Your task to perform on an android device: delete location history Image 0: 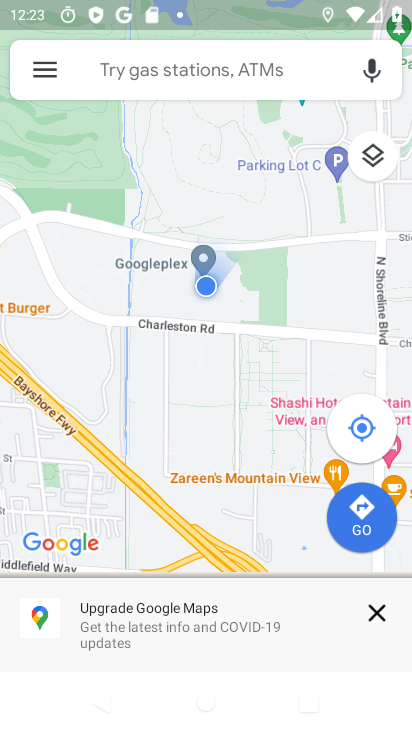
Step 0: click (46, 61)
Your task to perform on an android device: delete location history Image 1: 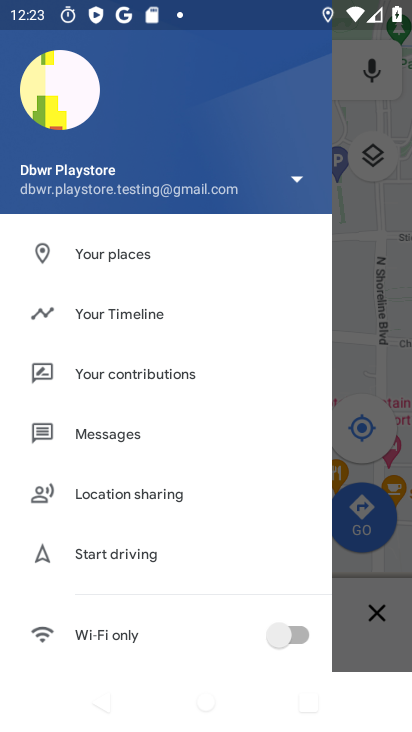
Step 1: click (133, 315)
Your task to perform on an android device: delete location history Image 2: 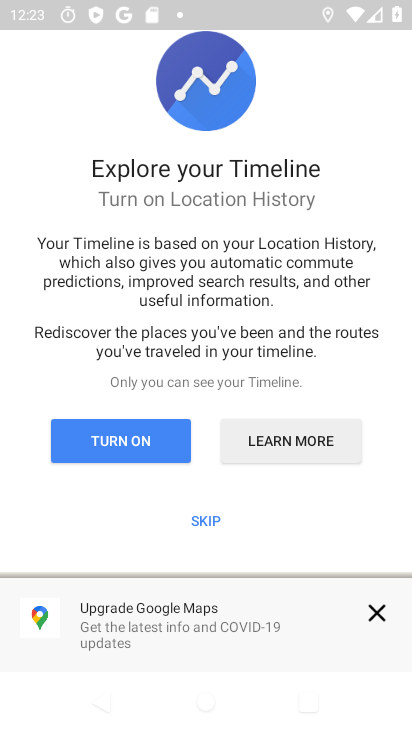
Step 2: click (132, 438)
Your task to perform on an android device: delete location history Image 3: 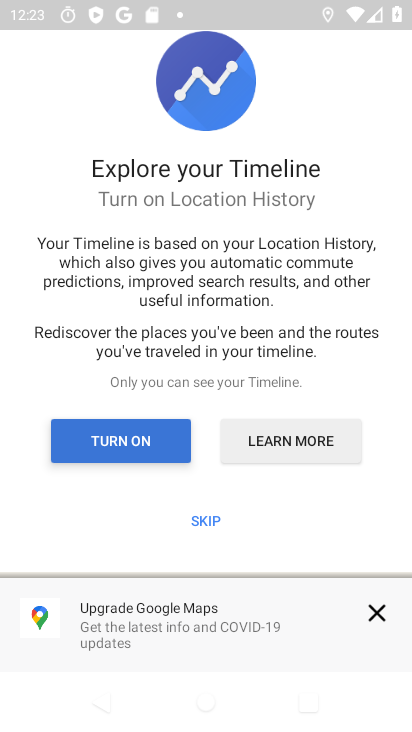
Step 3: click (135, 437)
Your task to perform on an android device: delete location history Image 4: 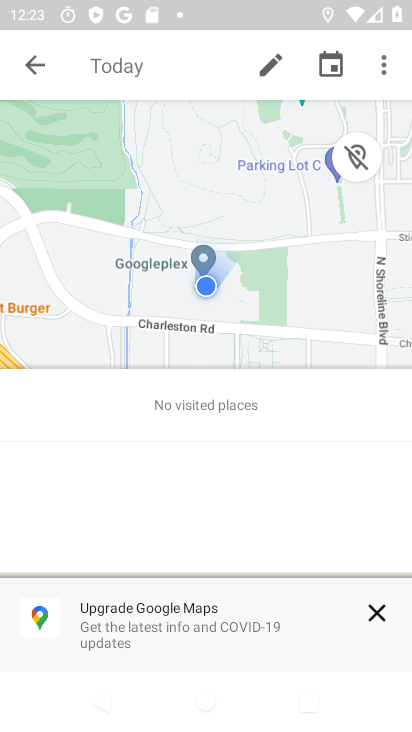
Step 4: click (141, 437)
Your task to perform on an android device: delete location history Image 5: 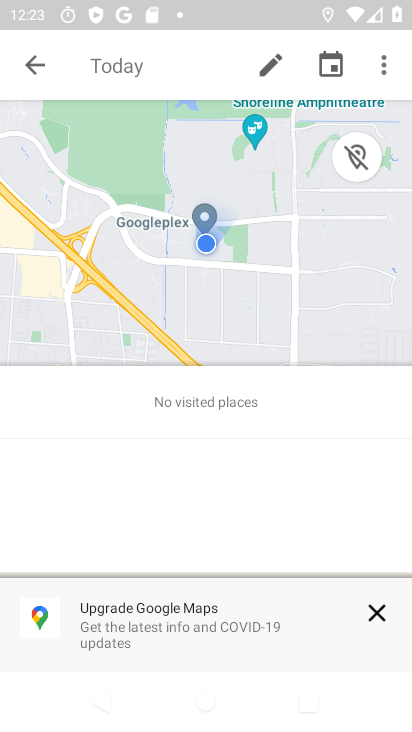
Step 5: click (142, 436)
Your task to perform on an android device: delete location history Image 6: 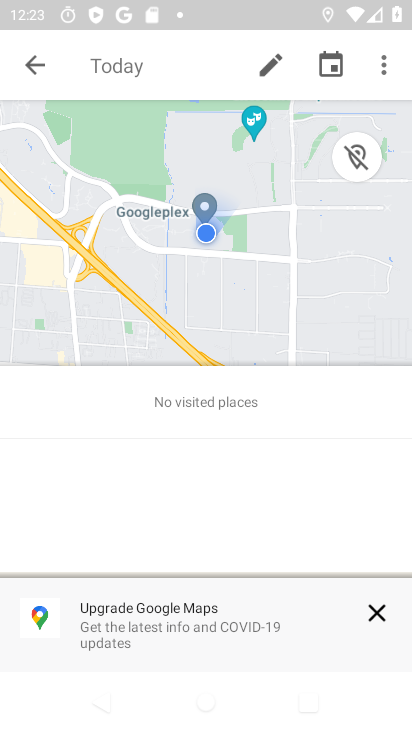
Step 6: click (141, 431)
Your task to perform on an android device: delete location history Image 7: 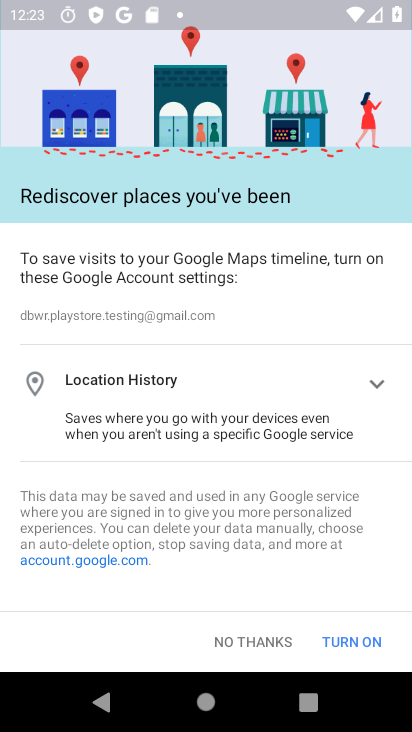
Step 7: click (358, 634)
Your task to perform on an android device: delete location history Image 8: 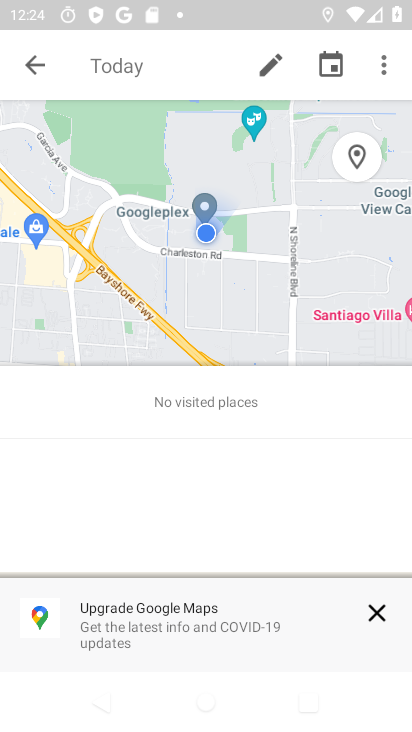
Step 8: drag from (382, 63) to (273, 429)
Your task to perform on an android device: delete location history Image 9: 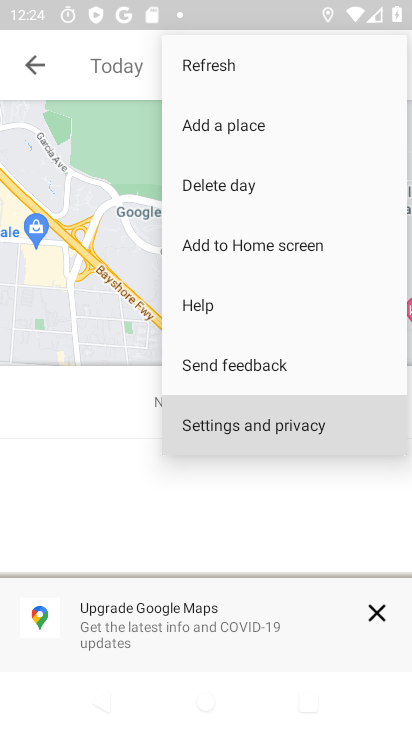
Step 9: click (273, 429)
Your task to perform on an android device: delete location history Image 10: 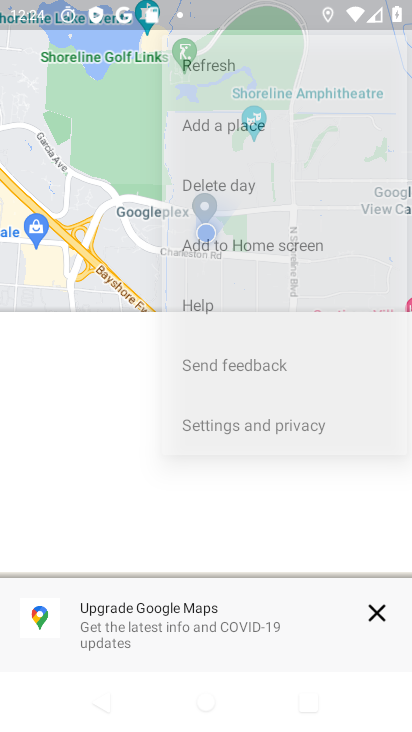
Step 10: click (275, 427)
Your task to perform on an android device: delete location history Image 11: 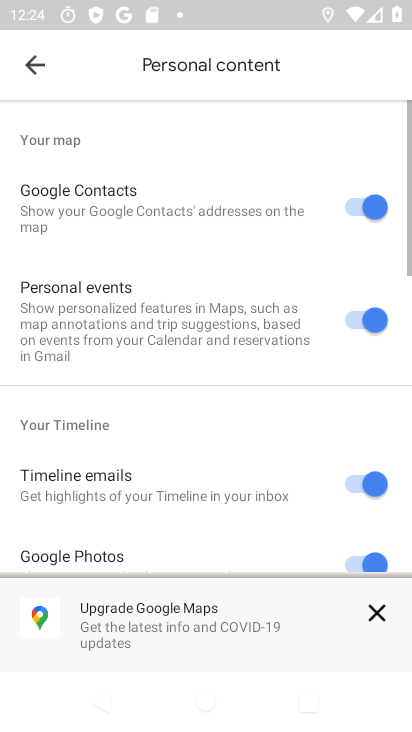
Step 11: drag from (215, 474) to (200, 148)
Your task to perform on an android device: delete location history Image 12: 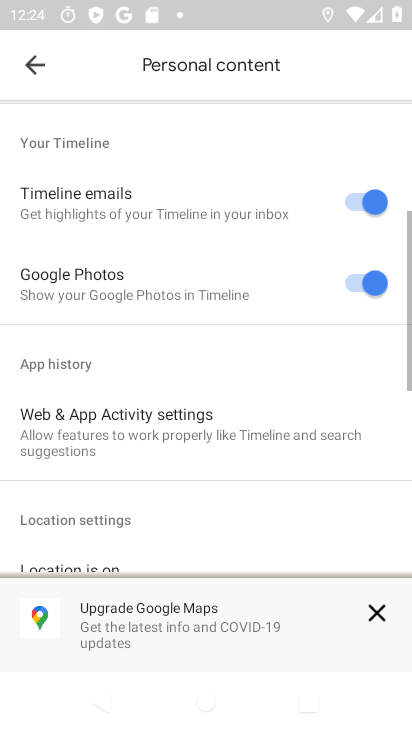
Step 12: drag from (195, 360) to (159, 108)
Your task to perform on an android device: delete location history Image 13: 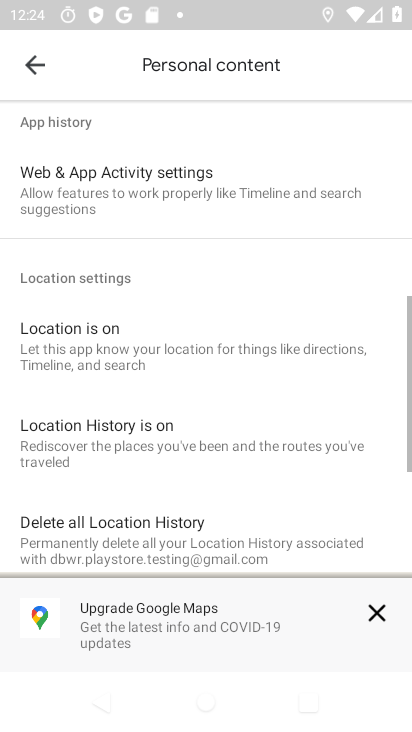
Step 13: drag from (223, 432) to (150, 62)
Your task to perform on an android device: delete location history Image 14: 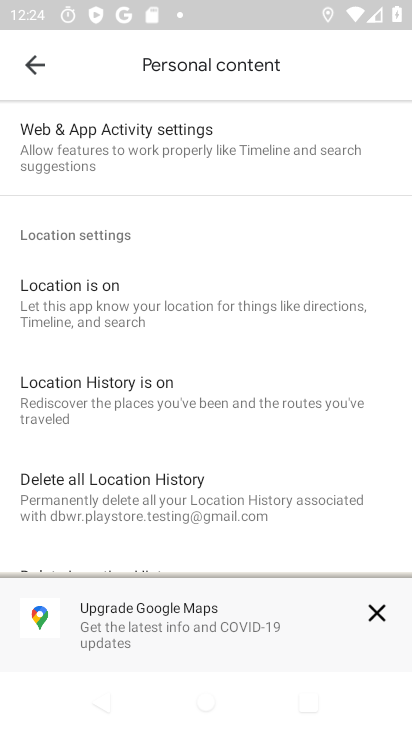
Step 14: click (55, 390)
Your task to perform on an android device: delete location history Image 15: 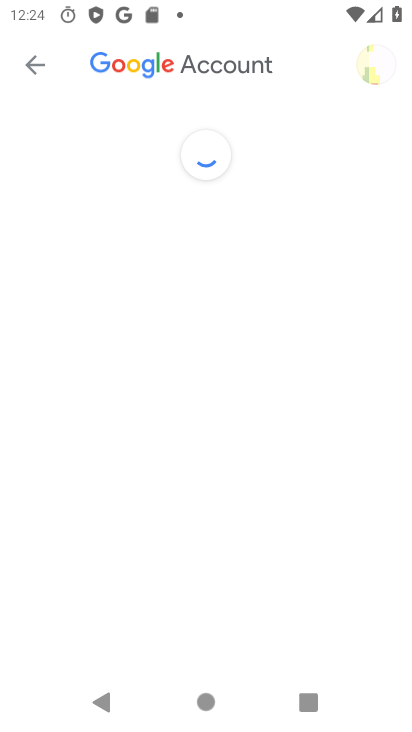
Step 15: press back button
Your task to perform on an android device: delete location history Image 16: 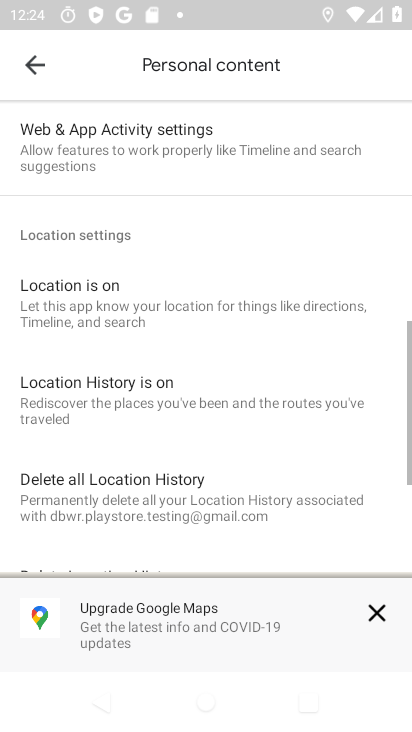
Step 16: drag from (200, 508) to (203, 143)
Your task to perform on an android device: delete location history Image 17: 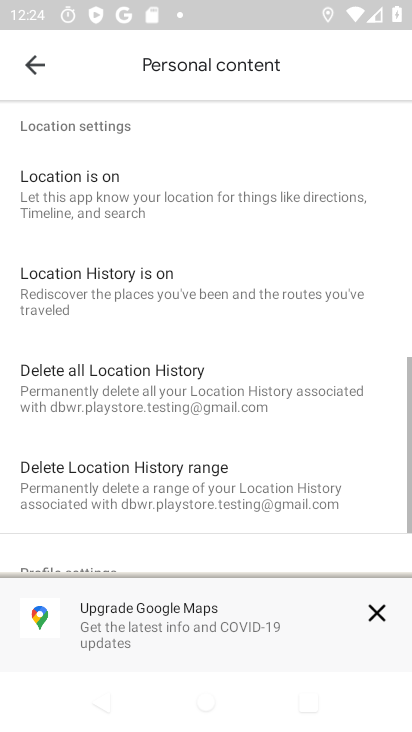
Step 17: drag from (277, 436) to (242, 184)
Your task to perform on an android device: delete location history Image 18: 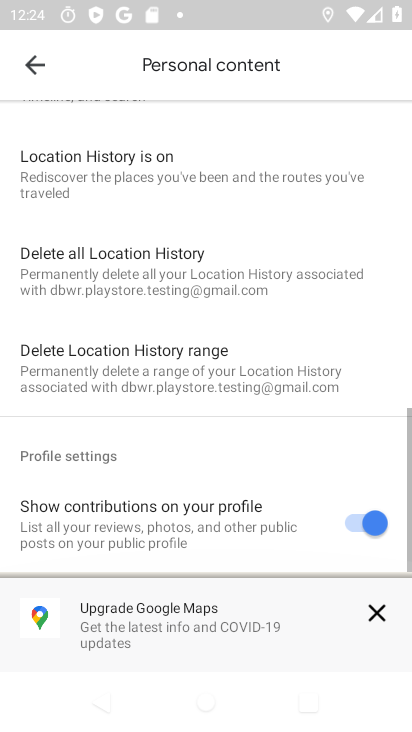
Step 18: drag from (246, 375) to (246, 60)
Your task to perform on an android device: delete location history Image 19: 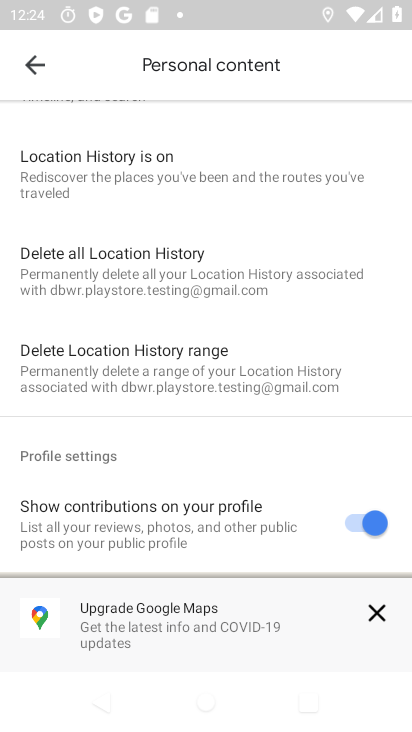
Step 19: click (142, 266)
Your task to perform on an android device: delete location history Image 20: 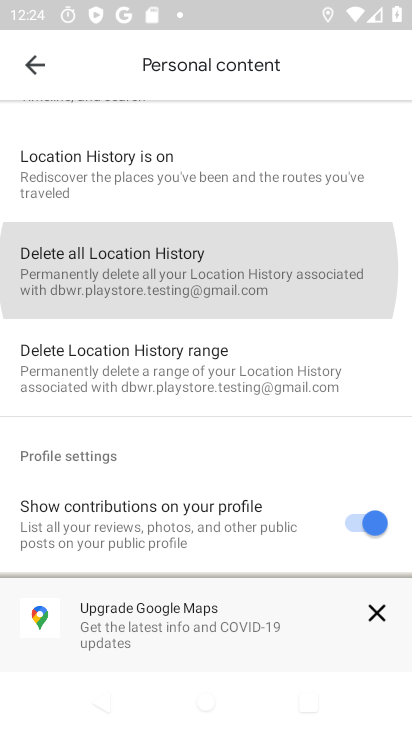
Step 20: click (142, 266)
Your task to perform on an android device: delete location history Image 21: 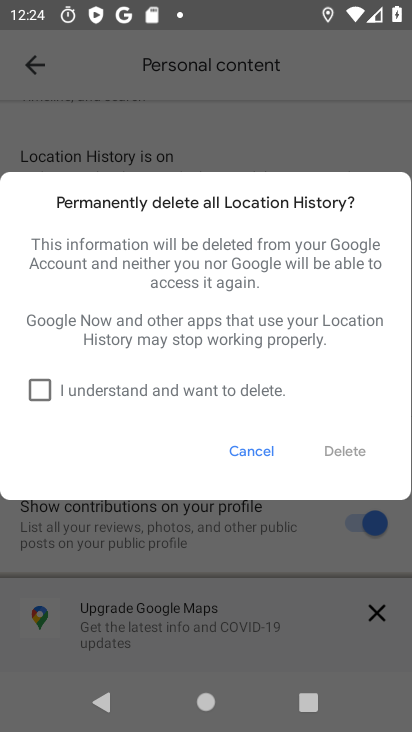
Step 21: click (143, 267)
Your task to perform on an android device: delete location history Image 22: 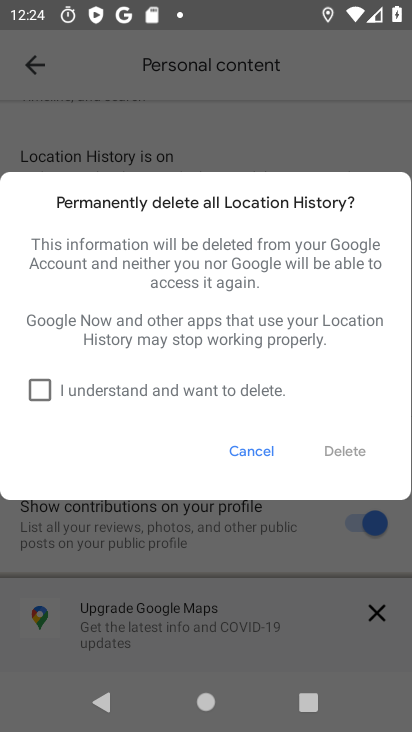
Step 22: click (40, 389)
Your task to perform on an android device: delete location history Image 23: 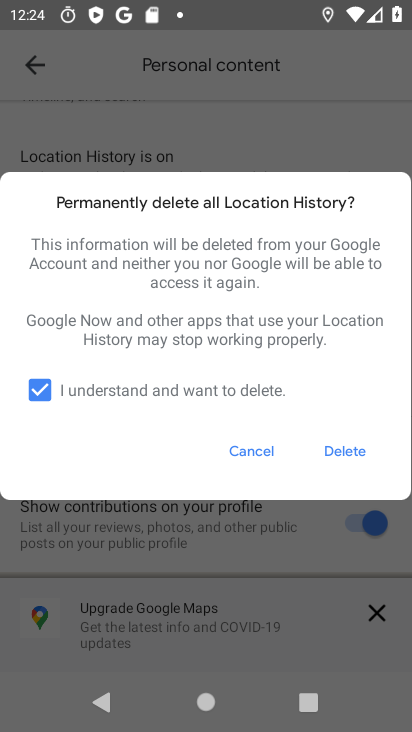
Step 23: click (344, 456)
Your task to perform on an android device: delete location history Image 24: 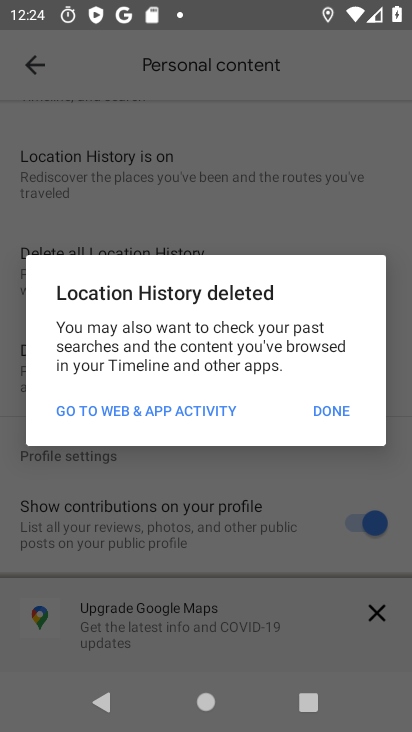
Step 24: click (329, 407)
Your task to perform on an android device: delete location history Image 25: 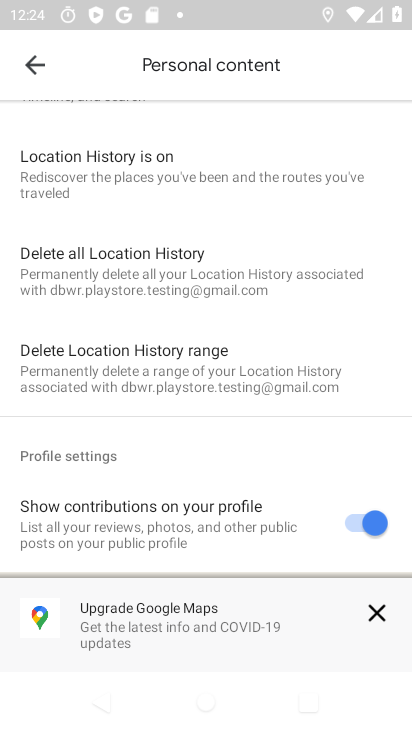
Step 25: task complete